Your task to perform on an android device: Open the Play Movies app and select the watchlist tab. Image 0: 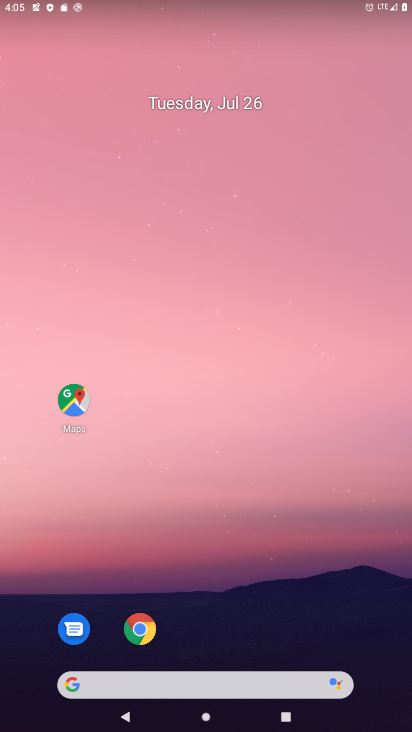
Step 0: drag from (228, 726) to (230, 176)
Your task to perform on an android device: Open the Play Movies app and select the watchlist tab. Image 1: 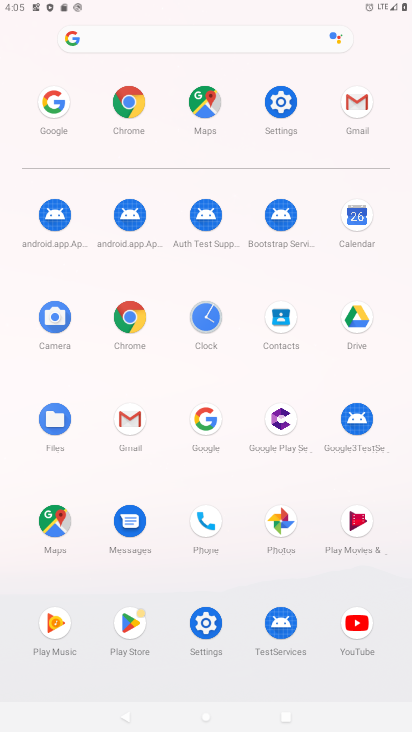
Step 1: click (346, 521)
Your task to perform on an android device: Open the Play Movies app and select the watchlist tab. Image 2: 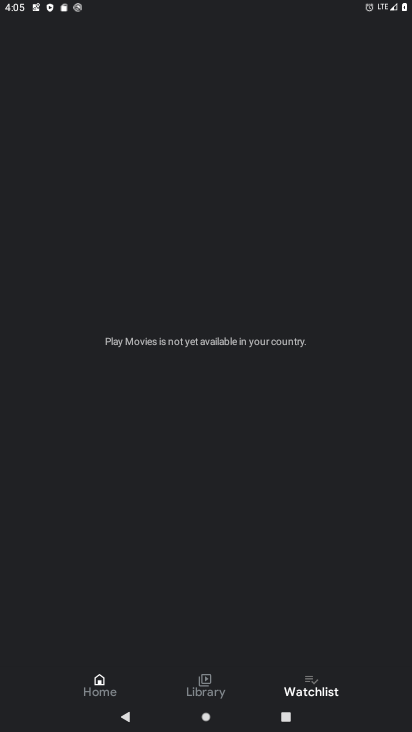
Step 2: task complete